Your task to perform on an android device: Add "alienware aurora" to the cart on newegg.com, then select checkout. Image 0: 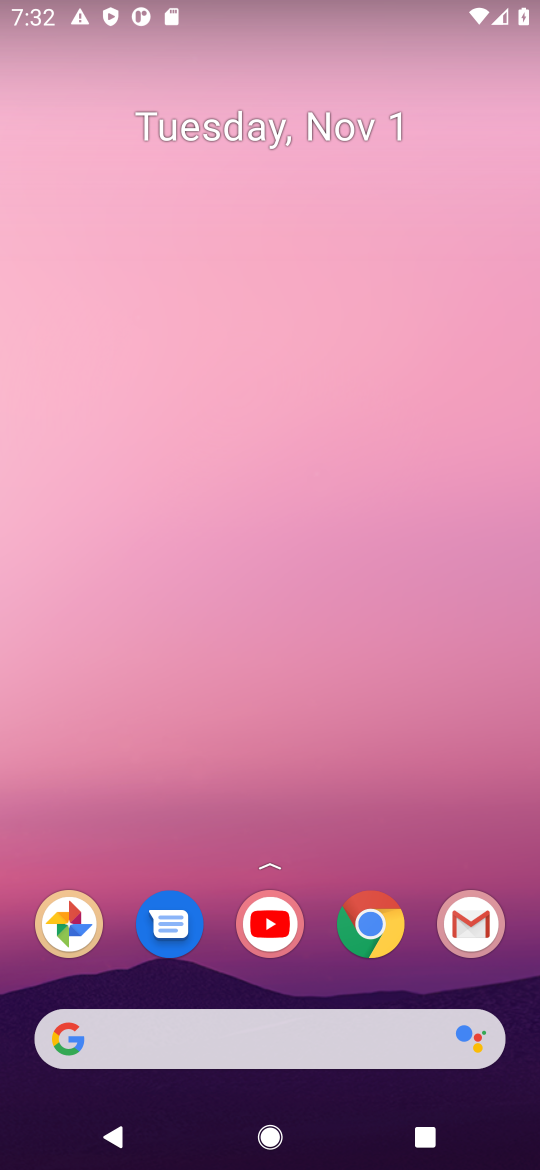
Step 0: press home button
Your task to perform on an android device: Add "alienware aurora" to the cart on newegg.com, then select checkout. Image 1: 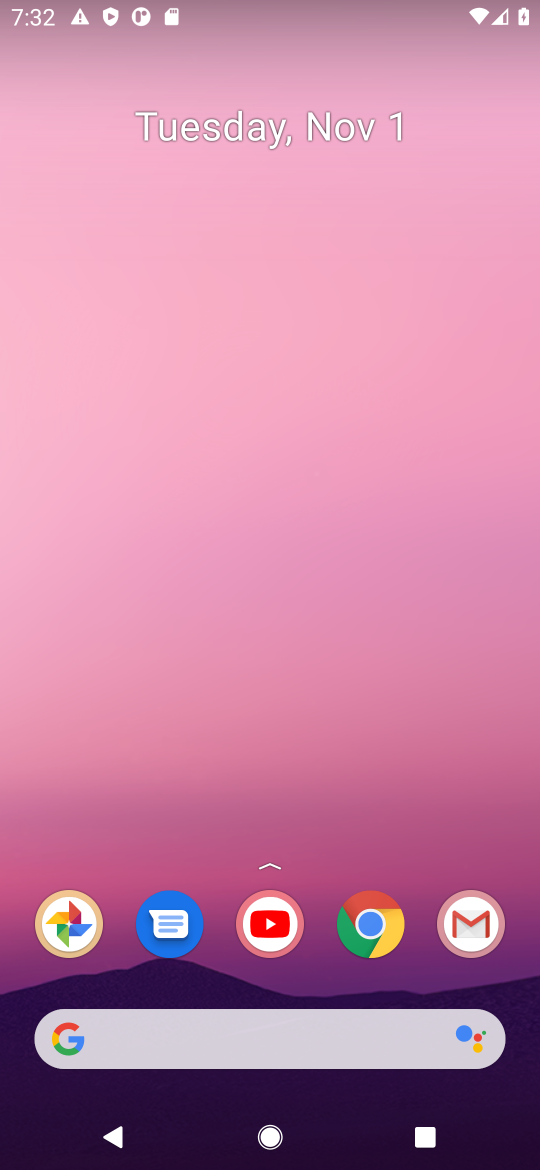
Step 1: click (117, 1033)
Your task to perform on an android device: Add "alienware aurora" to the cart on newegg.com, then select checkout. Image 2: 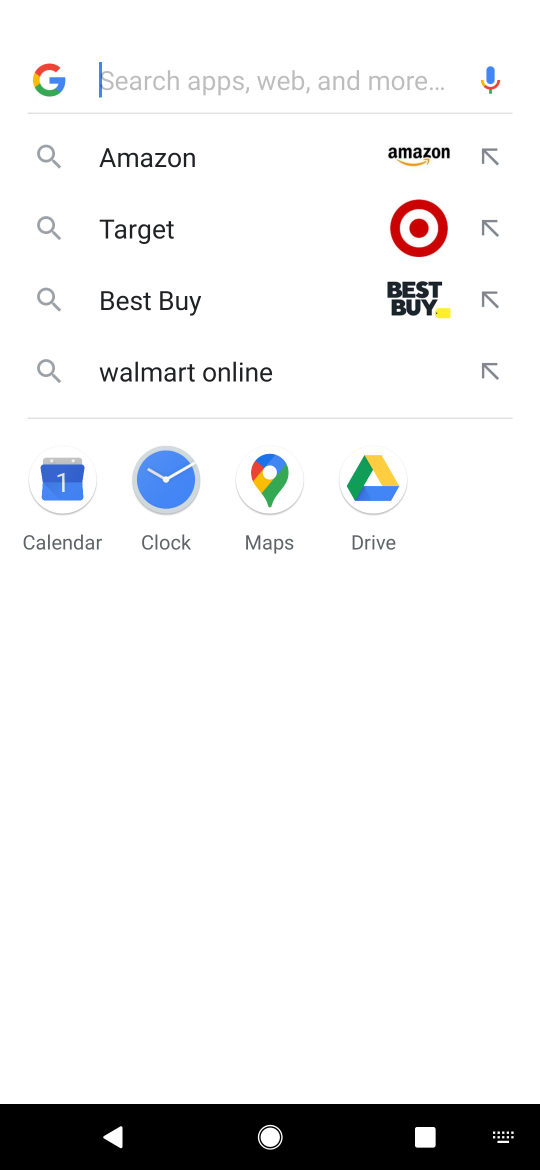
Step 2: click (169, 155)
Your task to perform on an android device: Add "alienware aurora" to the cart on newegg.com, then select checkout. Image 3: 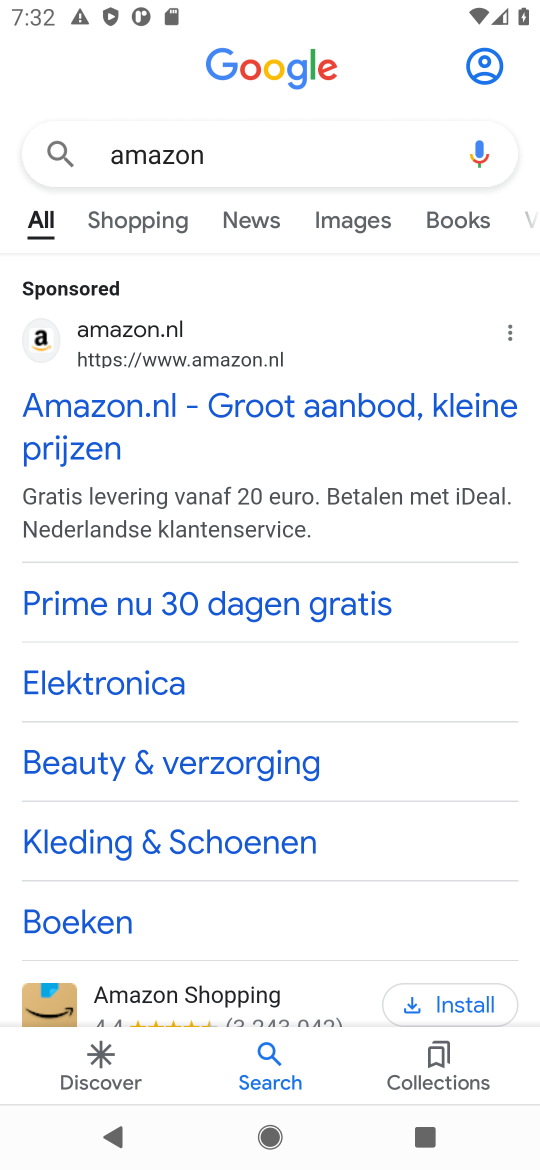
Step 3: click (140, 404)
Your task to perform on an android device: Add "alienware aurora" to the cart on newegg.com, then select checkout. Image 4: 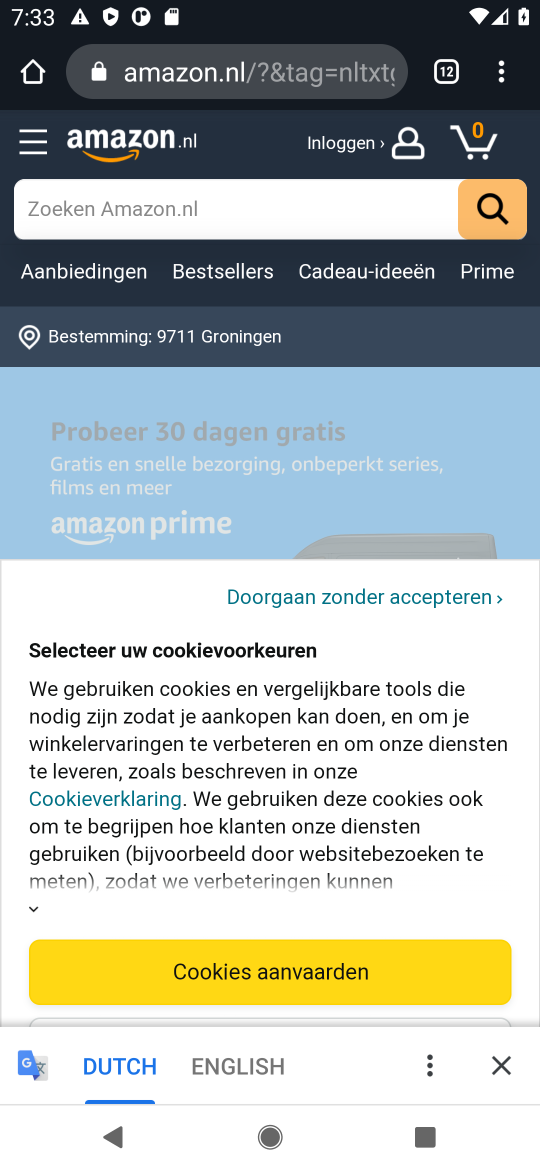
Step 4: click (166, 200)
Your task to perform on an android device: Add "alienware aurora" to the cart on newegg.com, then select checkout. Image 5: 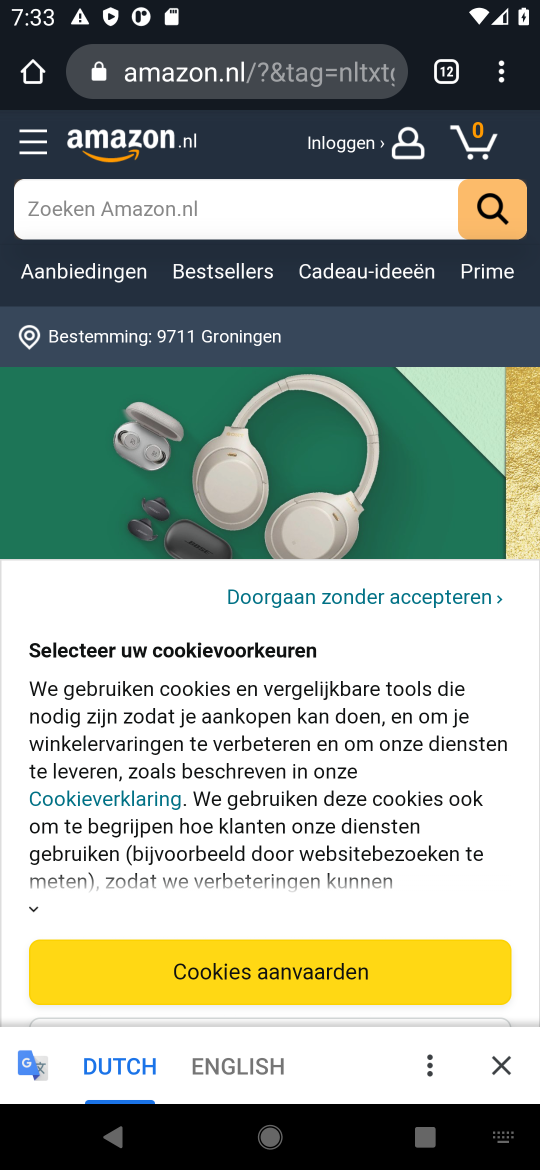
Step 5: press home button
Your task to perform on an android device: Add "alienware aurora" to the cart on newegg.com, then select checkout. Image 6: 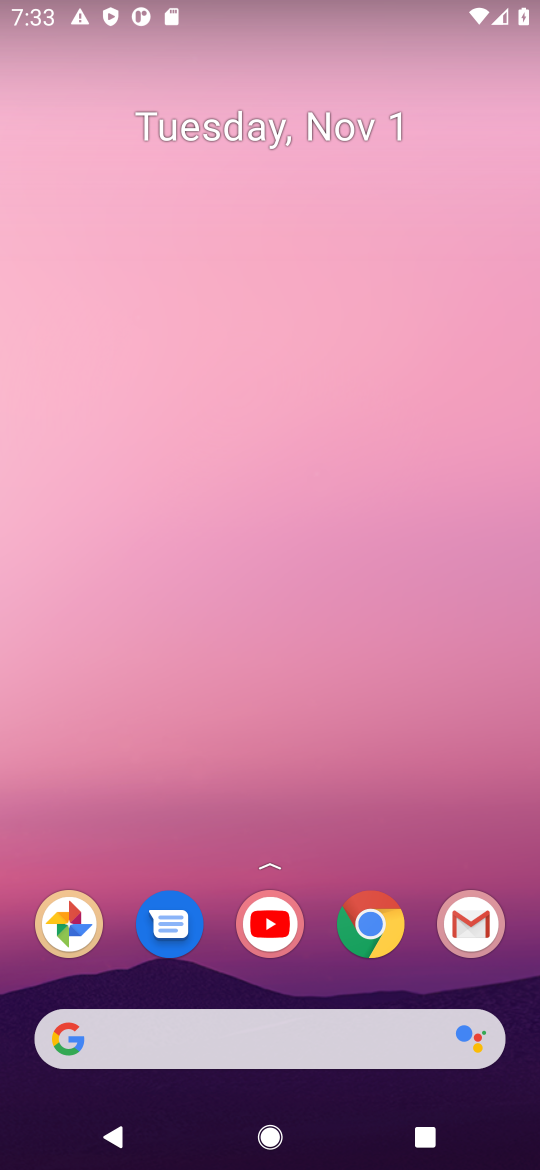
Step 6: click (100, 1044)
Your task to perform on an android device: Add "alienware aurora" to the cart on newegg.com, then select checkout. Image 7: 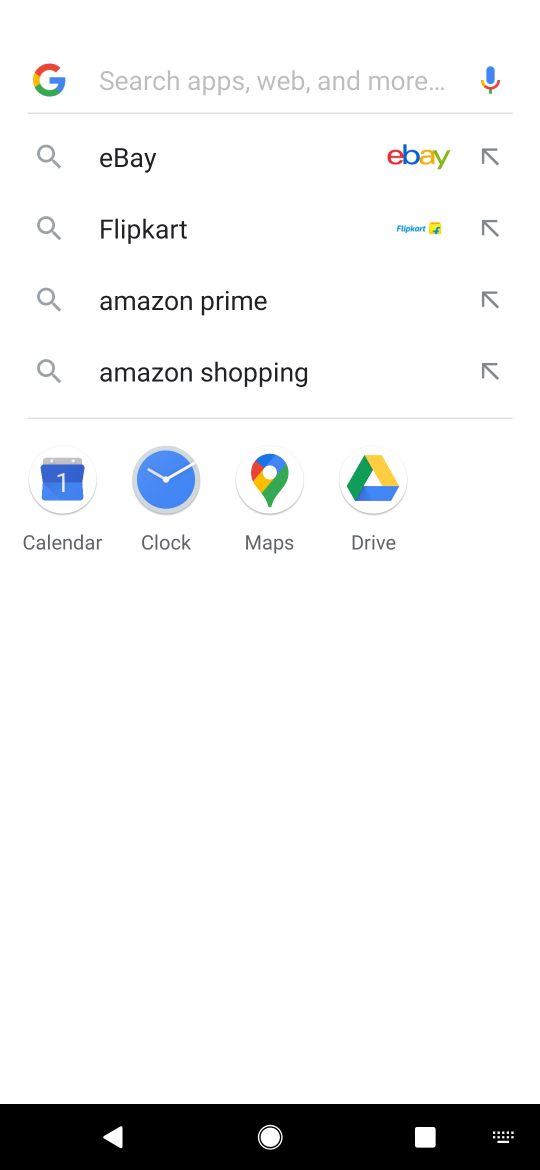
Step 7: press enter
Your task to perform on an android device: Add "alienware aurora" to the cart on newegg.com, then select checkout. Image 8: 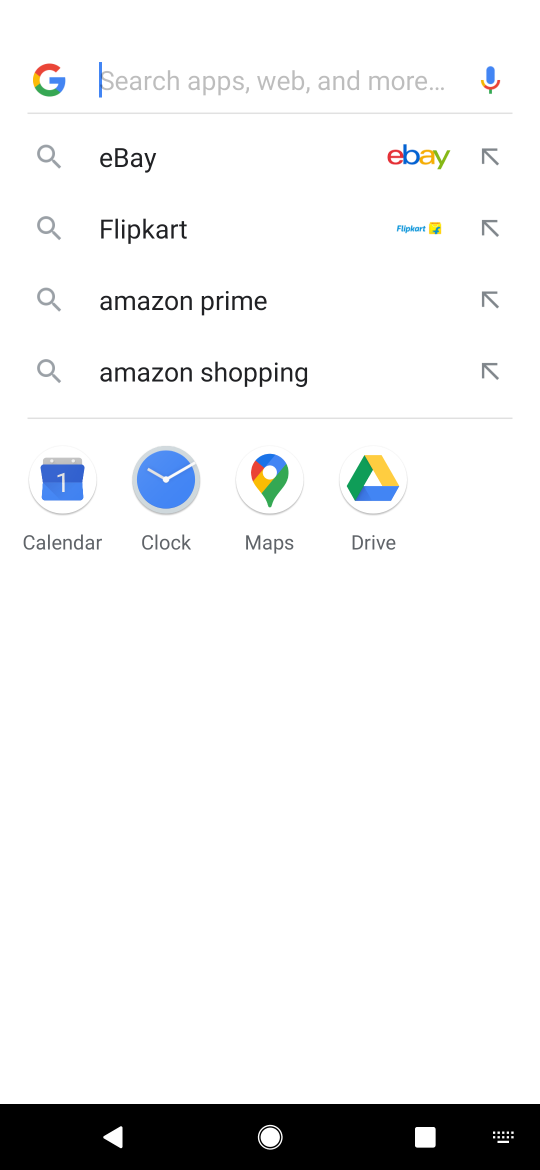
Step 8: type "newegg.com"
Your task to perform on an android device: Add "alienware aurora" to the cart on newegg.com, then select checkout. Image 9: 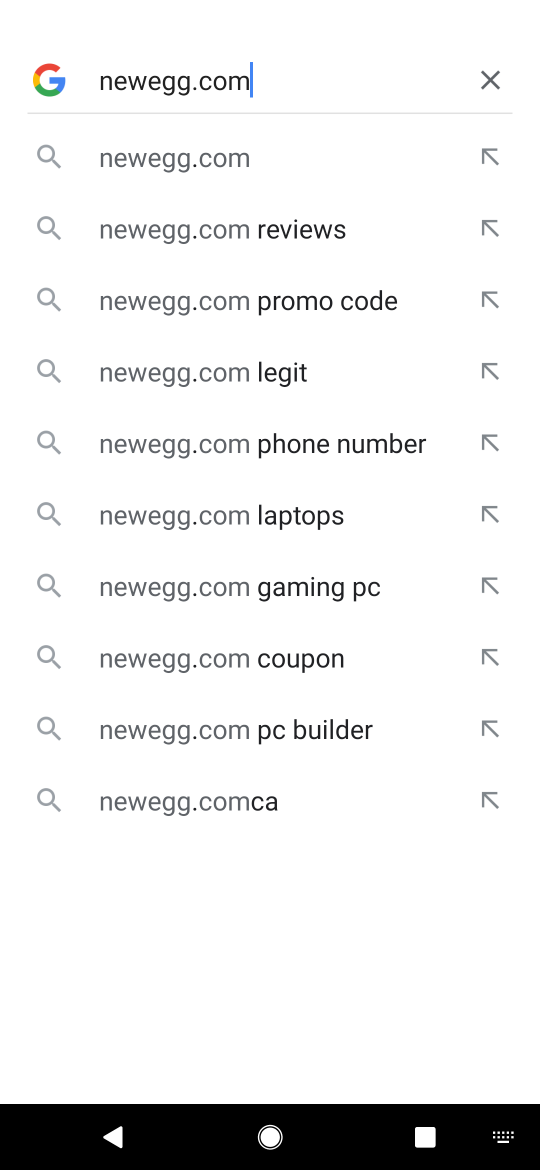
Step 9: press enter
Your task to perform on an android device: Add "alienware aurora" to the cart on newegg.com, then select checkout. Image 10: 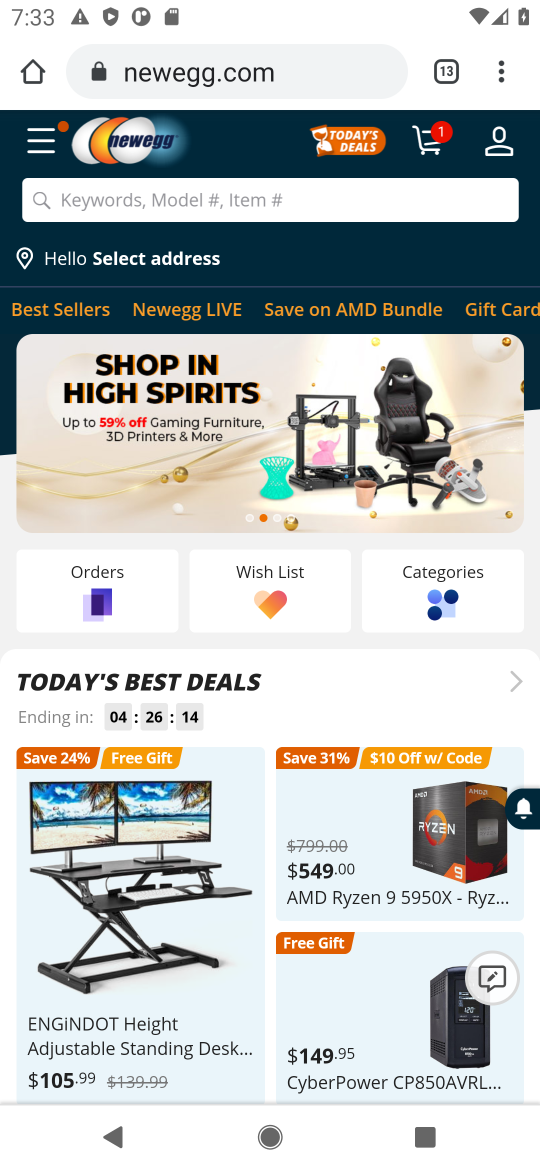
Step 10: click (176, 199)
Your task to perform on an android device: Add "alienware aurora" to the cart on newegg.com, then select checkout. Image 11: 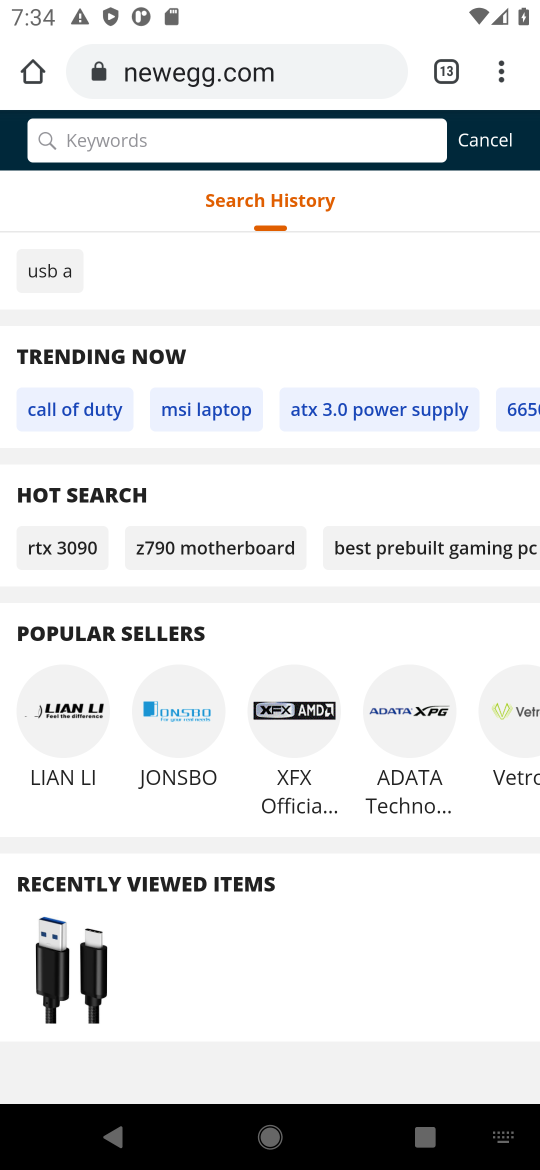
Step 11: type "alienware aurora"
Your task to perform on an android device: Add "alienware aurora" to the cart on newegg.com, then select checkout. Image 12: 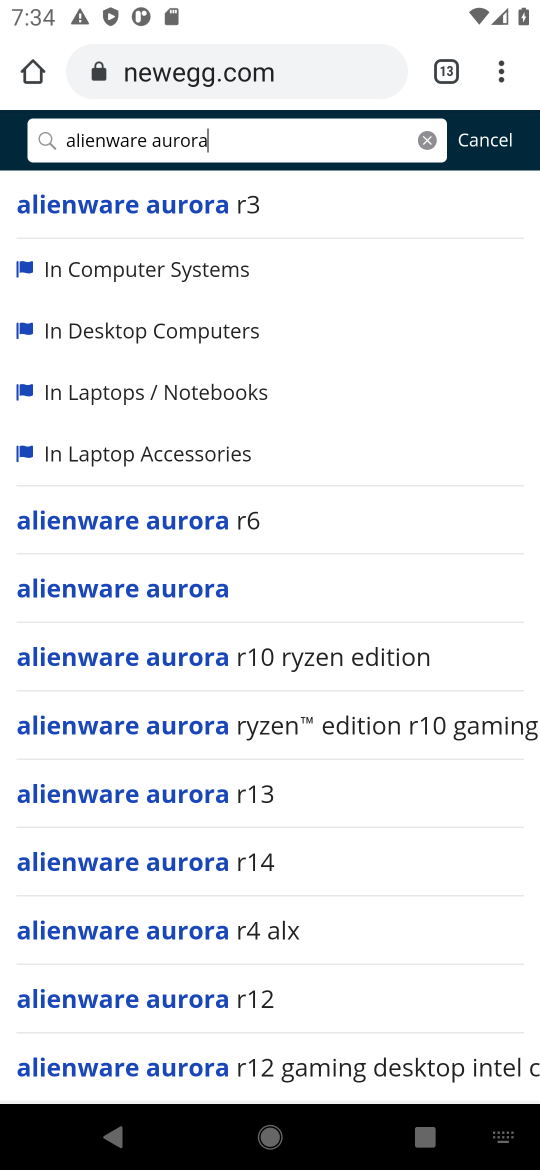
Step 12: press enter
Your task to perform on an android device: Add "alienware aurora" to the cart on newegg.com, then select checkout. Image 13: 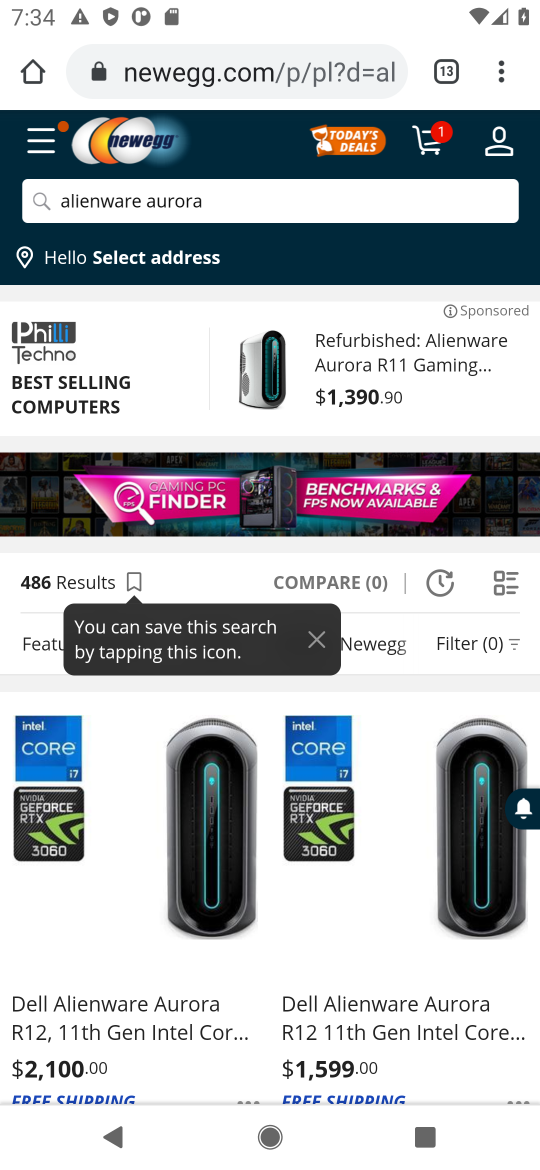
Step 13: drag from (259, 1029) to (288, 764)
Your task to perform on an android device: Add "alienware aurora" to the cart on newegg.com, then select checkout. Image 14: 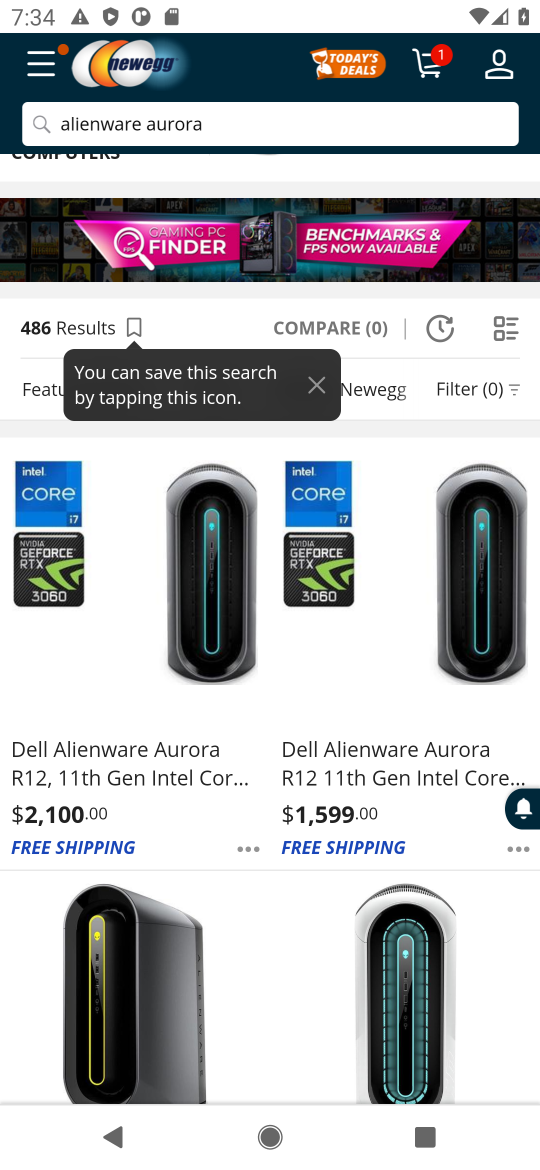
Step 14: click (136, 768)
Your task to perform on an android device: Add "alienware aurora" to the cart on newegg.com, then select checkout. Image 15: 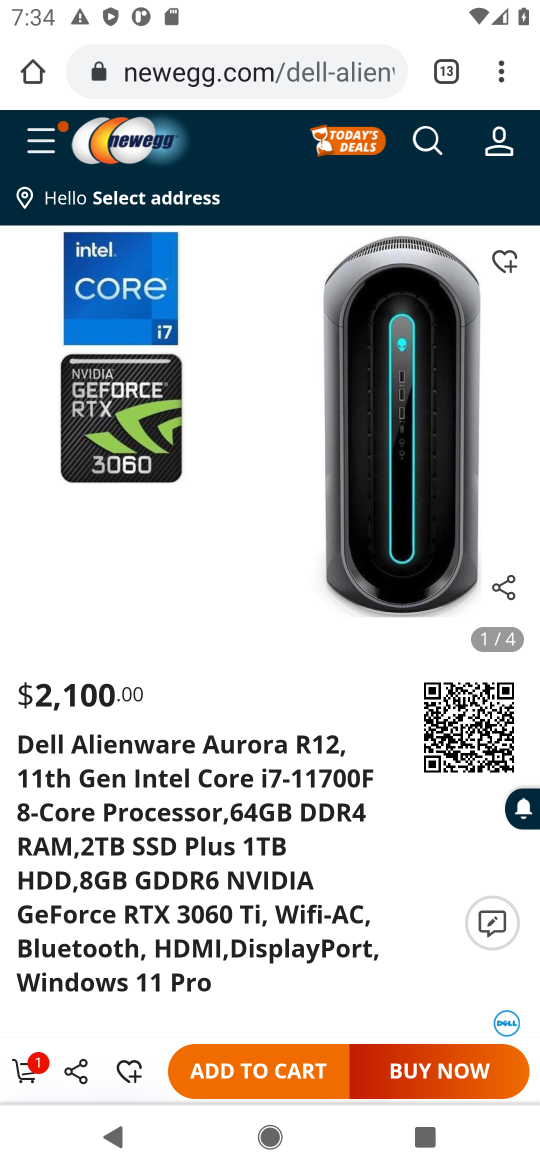
Step 15: click (247, 1080)
Your task to perform on an android device: Add "alienware aurora" to the cart on newegg.com, then select checkout. Image 16: 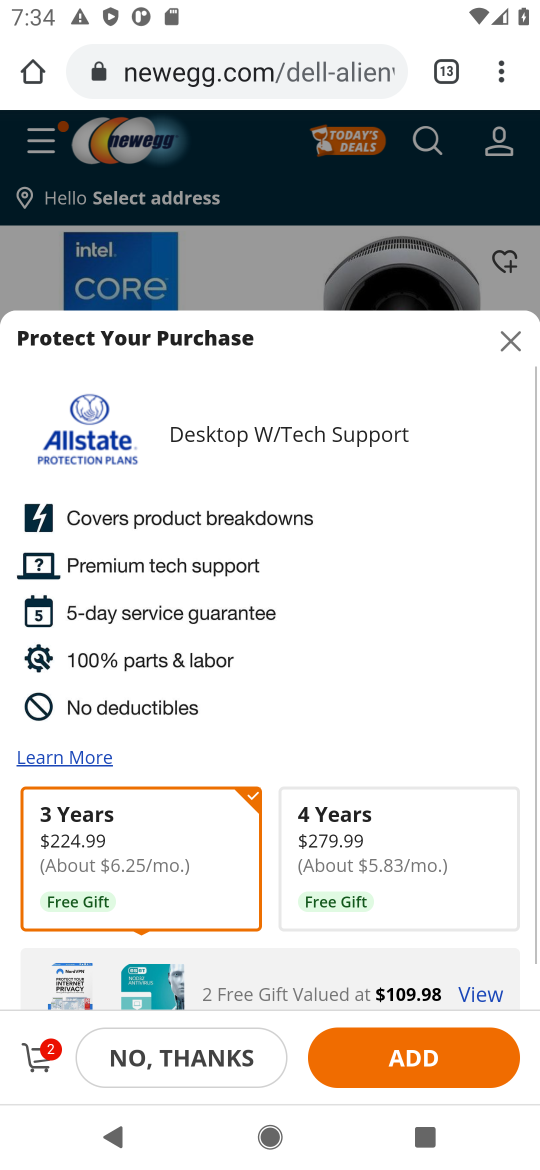
Step 16: click (443, 1060)
Your task to perform on an android device: Add "alienware aurora" to the cart on newegg.com, then select checkout. Image 17: 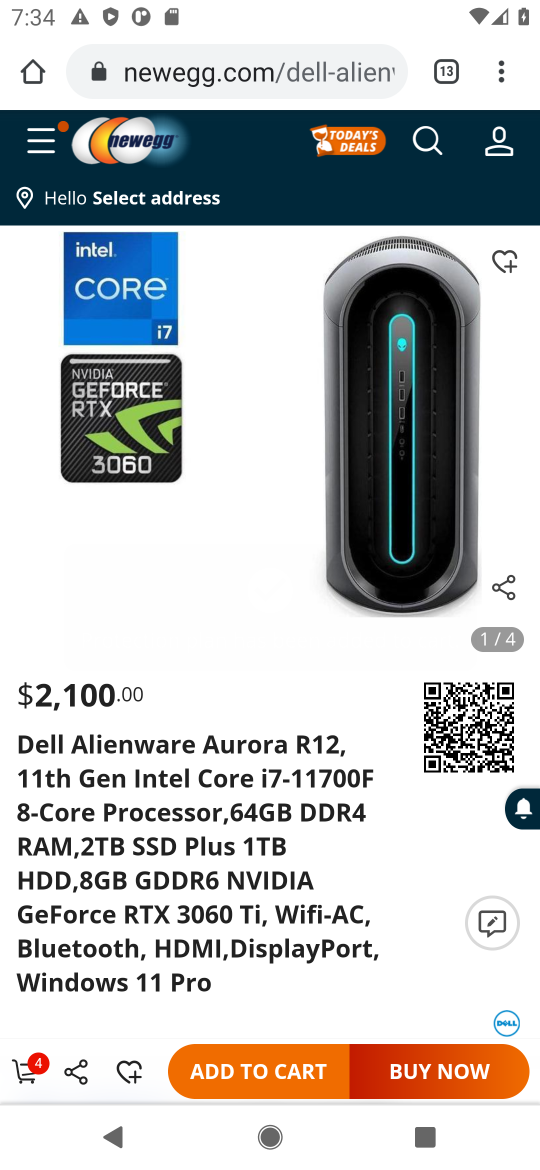
Step 17: click (29, 1071)
Your task to perform on an android device: Add "alienware aurora" to the cart on newegg.com, then select checkout. Image 18: 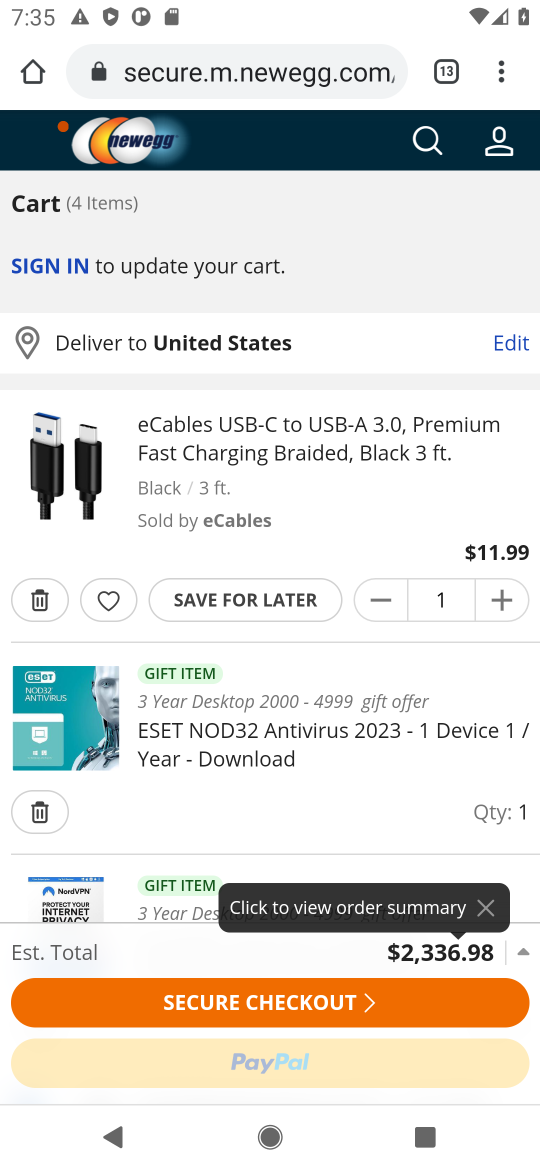
Step 18: click (311, 995)
Your task to perform on an android device: Add "alienware aurora" to the cart on newegg.com, then select checkout. Image 19: 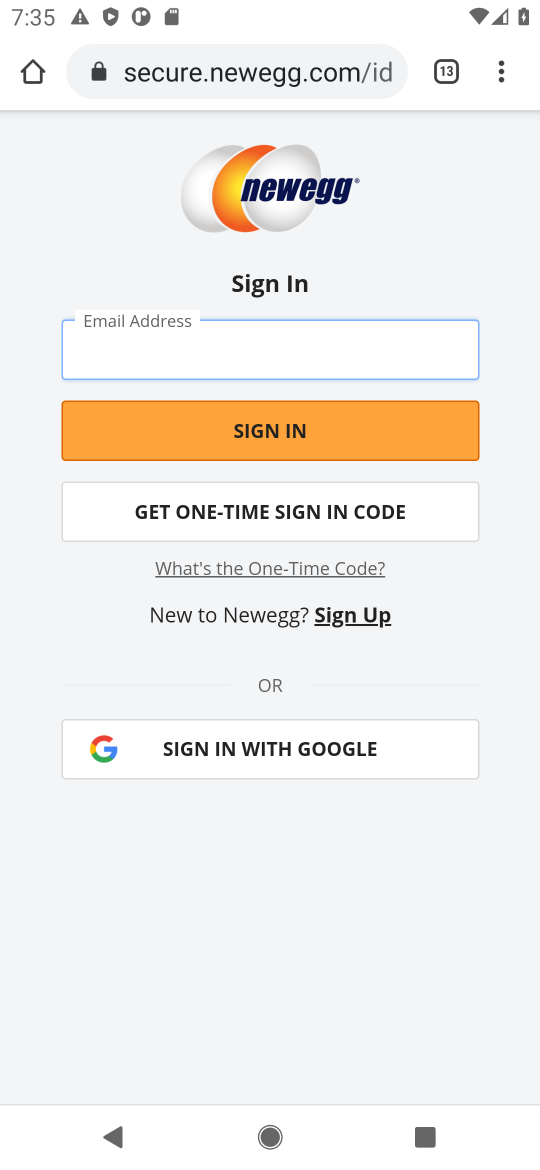
Step 19: task complete